Your task to perform on an android device: What is the news today? Image 0: 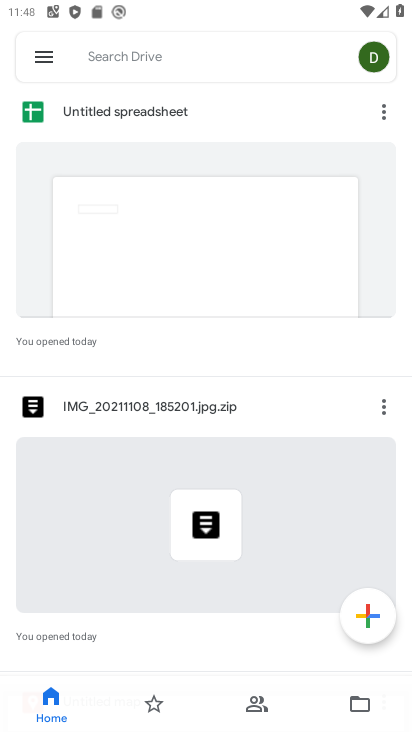
Step 0: press home button
Your task to perform on an android device: What is the news today? Image 1: 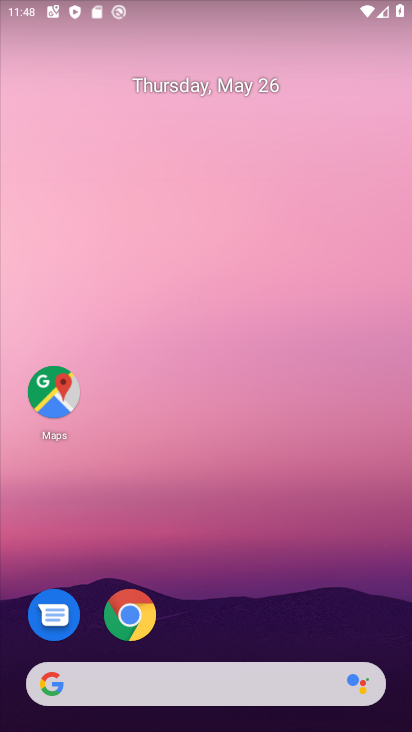
Step 1: click (157, 693)
Your task to perform on an android device: What is the news today? Image 2: 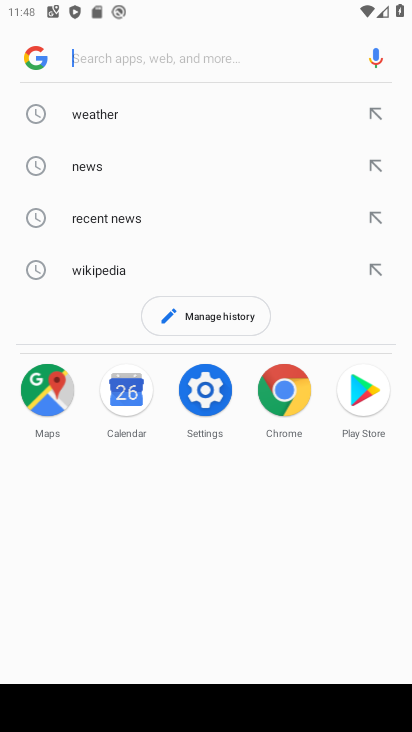
Step 2: click (80, 171)
Your task to perform on an android device: What is the news today? Image 3: 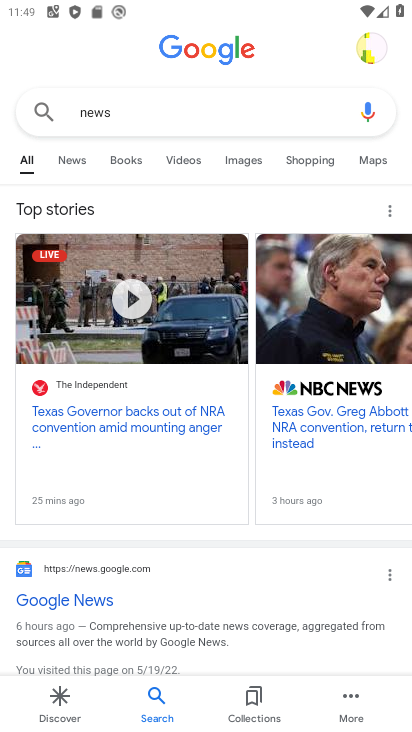
Step 3: task complete